Your task to perform on an android device: change the clock style Image 0: 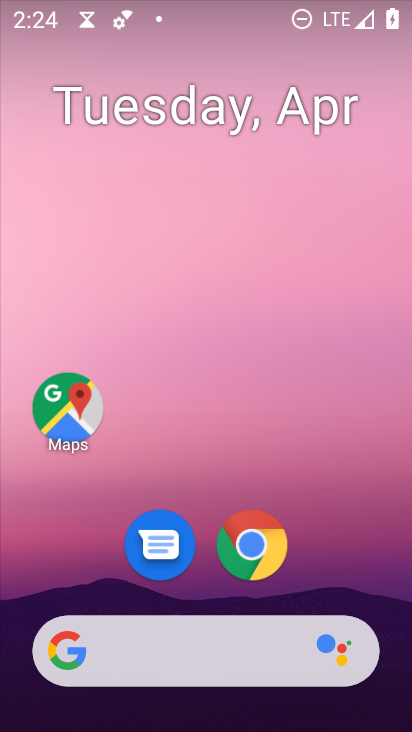
Step 0: drag from (354, 534) to (309, 115)
Your task to perform on an android device: change the clock style Image 1: 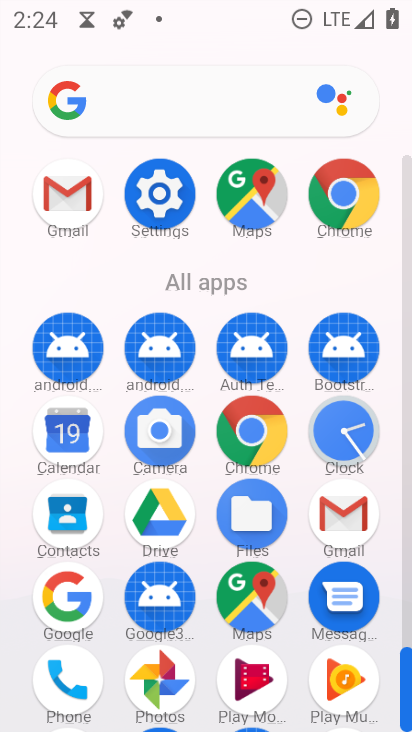
Step 1: click (352, 432)
Your task to perform on an android device: change the clock style Image 2: 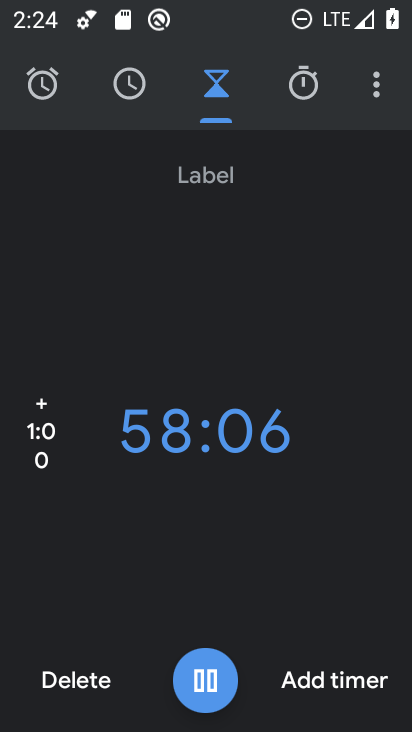
Step 2: click (377, 98)
Your task to perform on an android device: change the clock style Image 3: 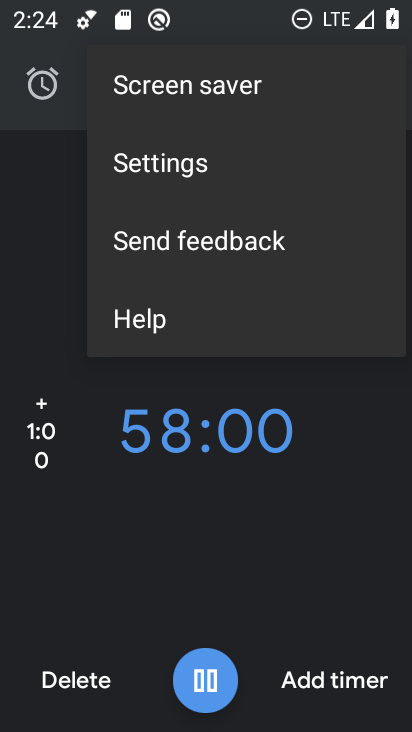
Step 3: click (275, 169)
Your task to perform on an android device: change the clock style Image 4: 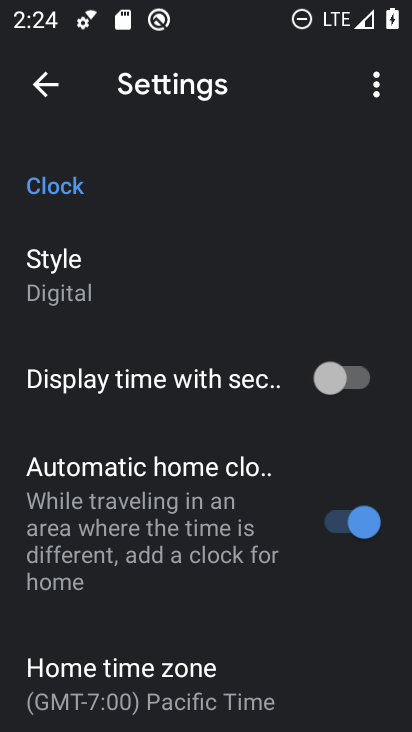
Step 4: click (242, 284)
Your task to perform on an android device: change the clock style Image 5: 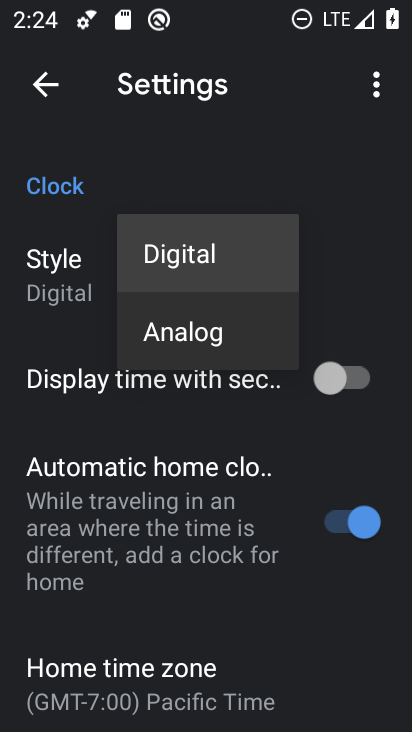
Step 5: click (240, 317)
Your task to perform on an android device: change the clock style Image 6: 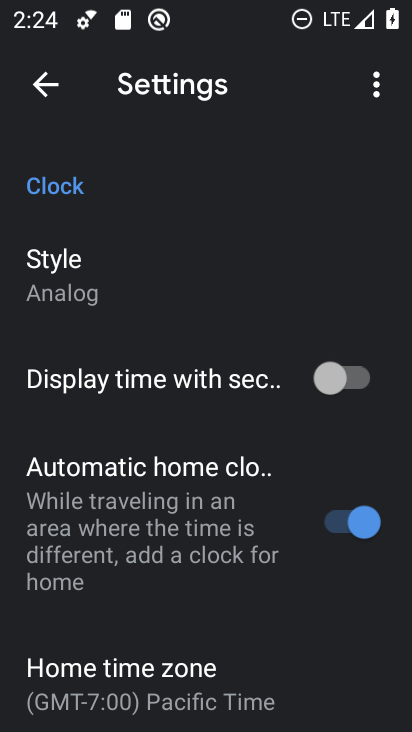
Step 6: task complete